Your task to perform on an android device: set the stopwatch Image 0: 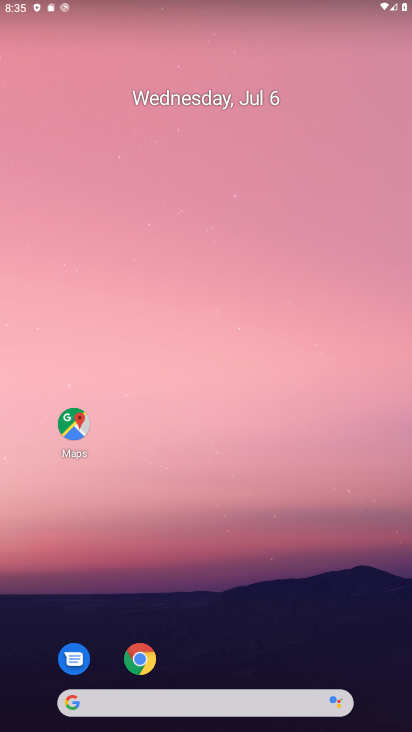
Step 0: drag from (354, 653) to (361, 217)
Your task to perform on an android device: set the stopwatch Image 1: 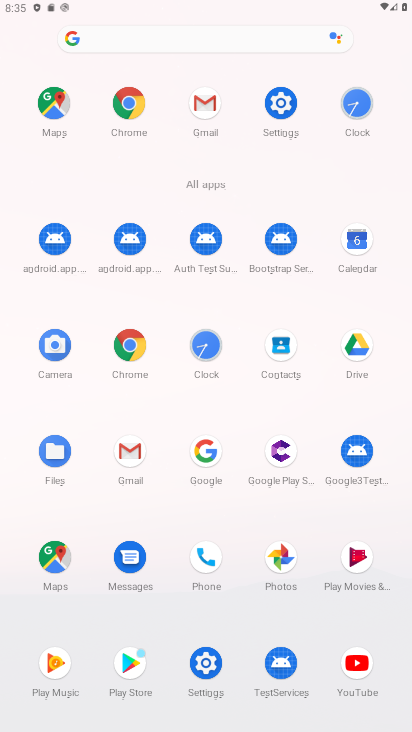
Step 1: click (214, 345)
Your task to perform on an android device: set the stopwatch Image 2: 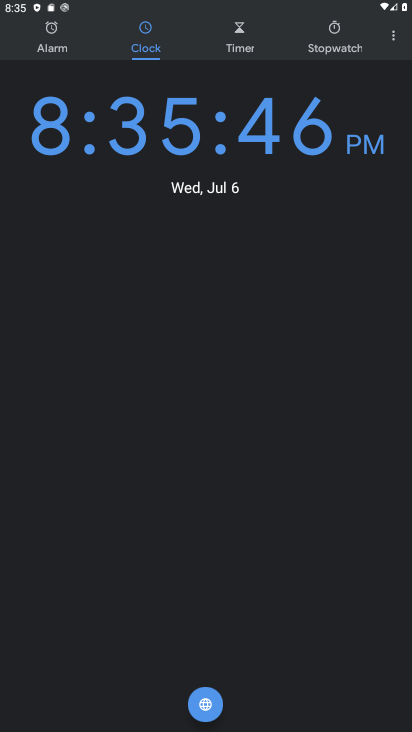
Step 2: click (336, 42)
Your task to perform on an android device: set the stopwatch Image 3: 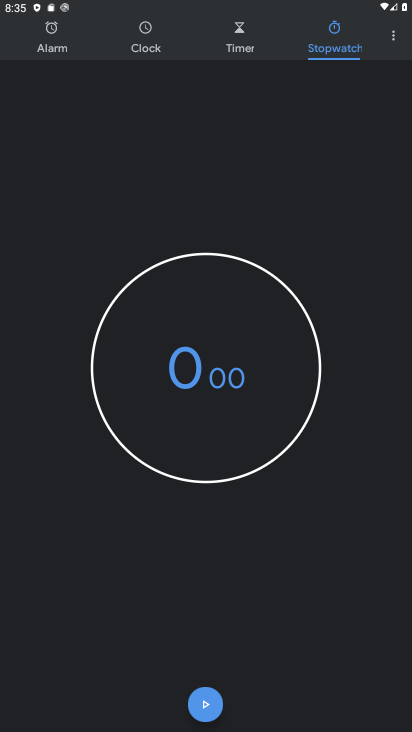
Step 3: click (204, 704)
Your task to perform on an android device: set the stopwatch Image 4: 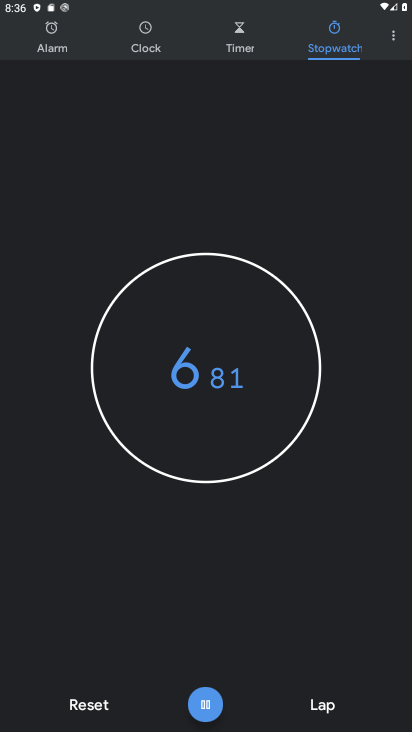
Step 4: task complete